Your task to perform on an android device: snooze an email in the gmail app Image 0: 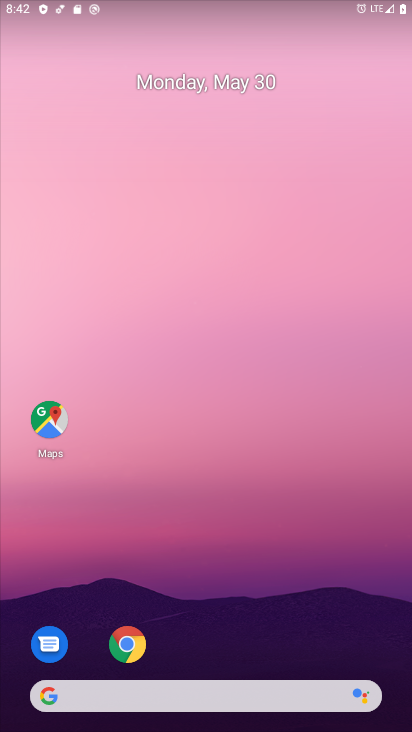
Step 0: drag from (395, 658) to (269, 48)
Your task to perform on an android device: snooze an email in the gmail app Image 1: 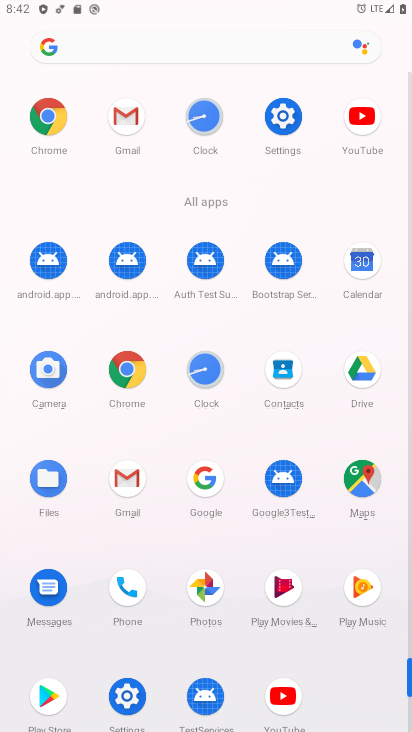
Step 1: click (125, 478)
Your task to perform on an android device: snooze an email in the gmail app Image 2: 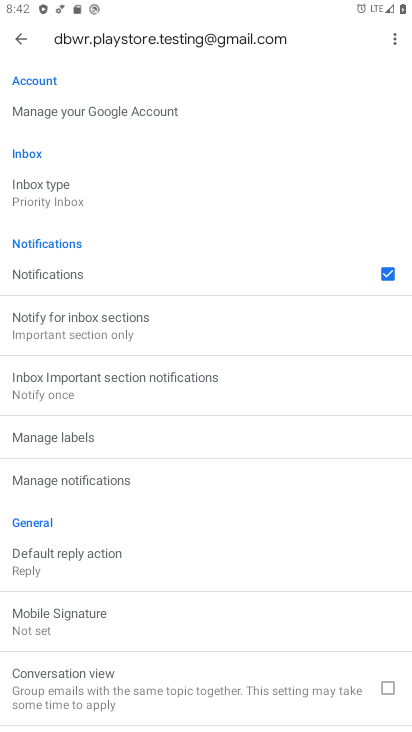
Step 2: press back button
Your task to perform on an android device: snooze an email in the gmail app Image 3: 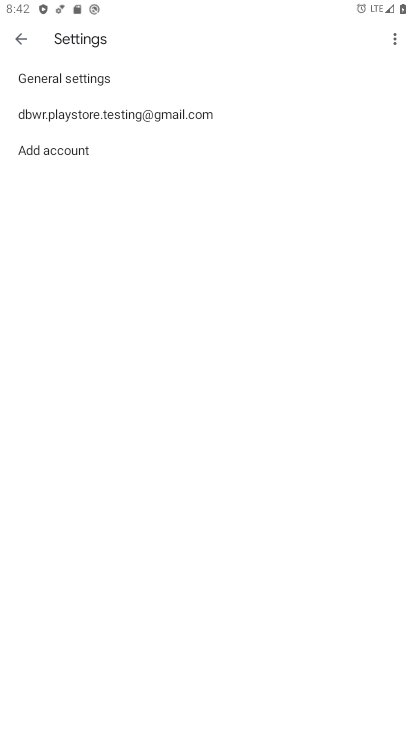
Step 3: press back button
Your task to perform on an android device: snooze an email in the gmail app Image 4: 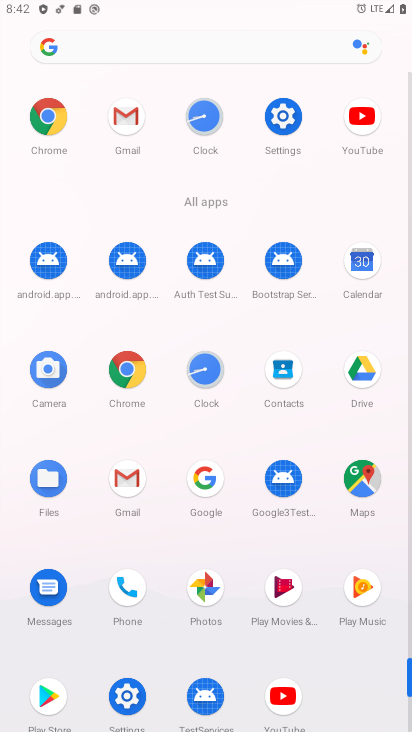
Step 4: click (125, 477)
Your task to perform on an android device: snooze an email in the gmail app Image 5: 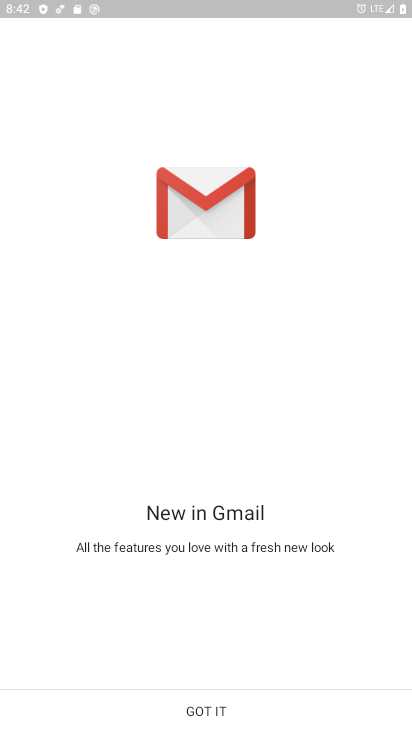
Step 5: click (200, 712)
Your task to perform on an android device: snooze an email in the gmail app Image 6: 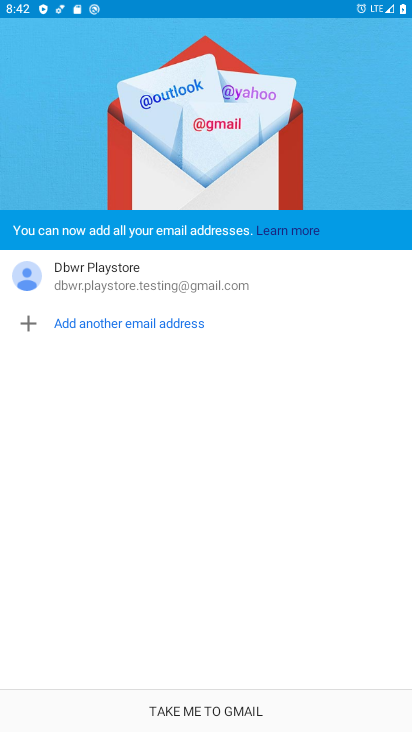
Step 6: click (200, 712)
Your task to perform on an android device: snooze an email in the gmail app Image 7: 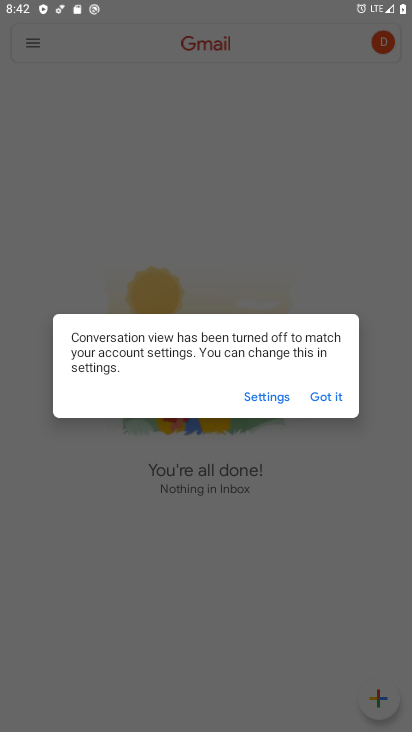
Step 7: click (332, 393)
Your task to perform on an android device: snooze an email in the gmail app Image 8: 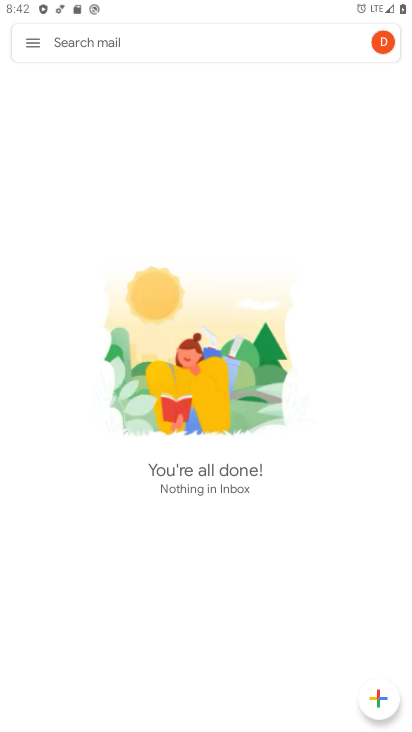
Step 8: click (31, 40)
Your task to perform on an android device: snooze an email in the gmail app Image 9: 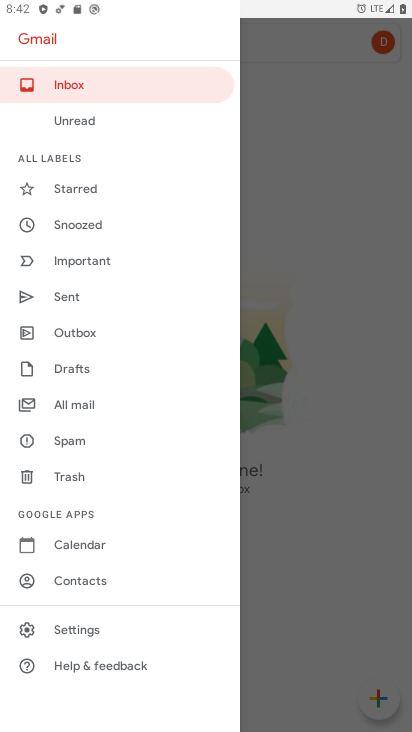
Step 9: click (78, 404)
Your task to perform on an android device: snooze an email in the gmail app Image 10: 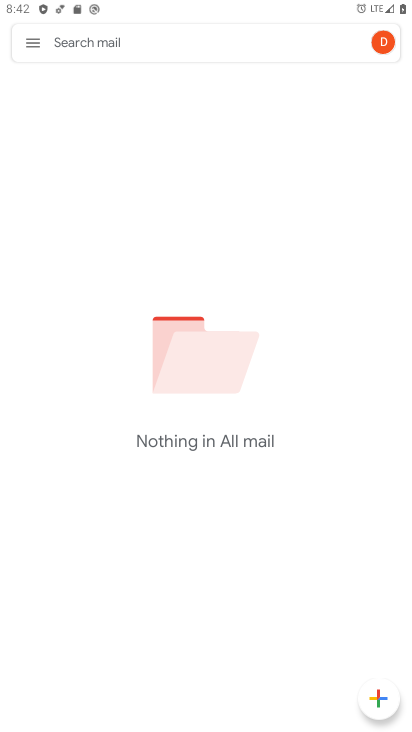
Step 10: task complete